Your task to perform on an android device: Show me the alarms in the clock app Image 0: 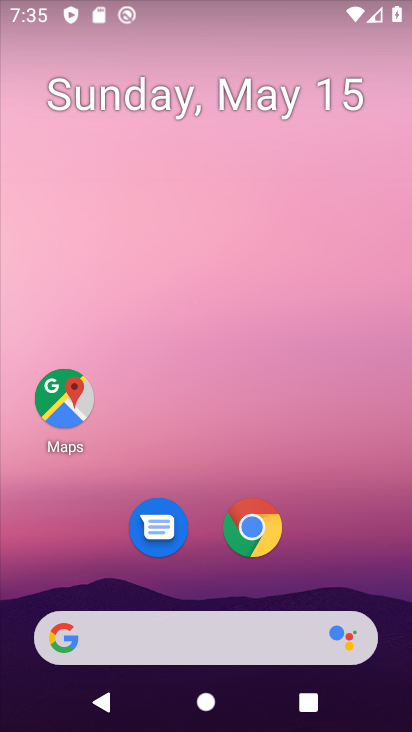
Step 0: drag from (204, 578) to (221, 4)
Your task to perform on an android device: Show me the alarms in the clock app Image 1: 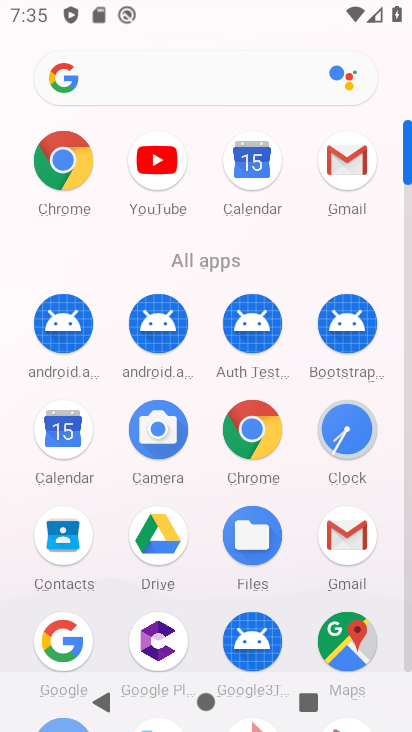
Step 1: click (342, 425)
Your task to perform on an android device: Show me the alarms in the clock app Image 2: 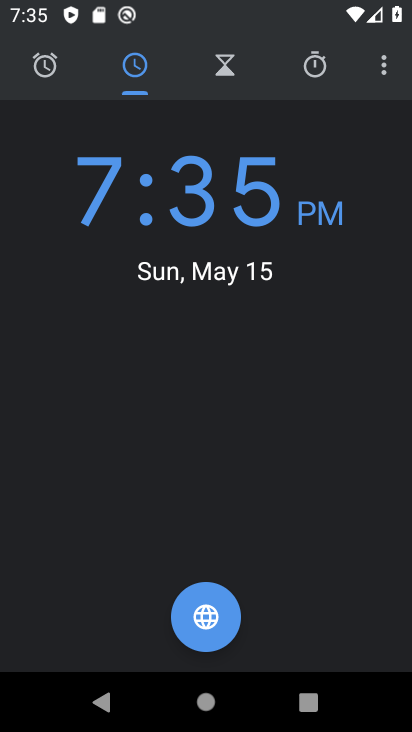
Step 2: click (57, 52)
Your task to perform on an android device: Show me the alarms in the clock app Image 3: 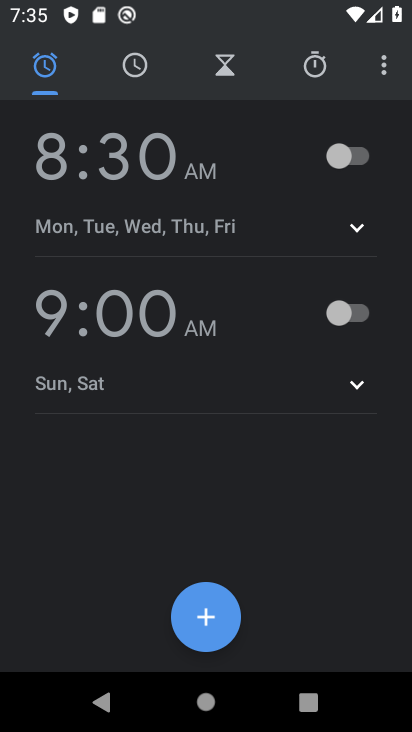
Step 3: task complete